Your task to perform on an android device: choose inbox layout in the gmail app Image 0: 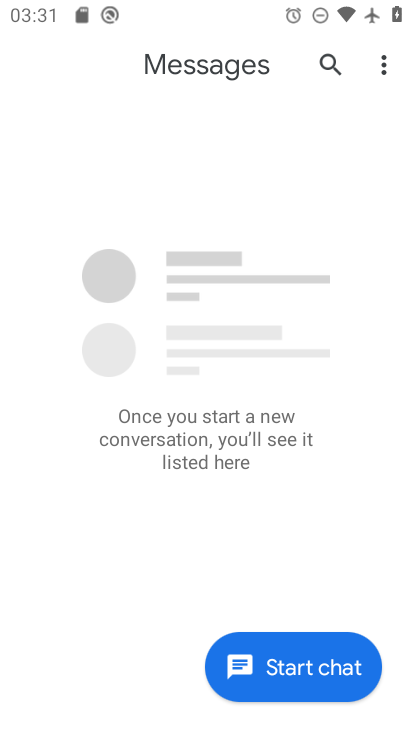
Step 0: press home button
Your task to perform on an android device: choose inbox layout in the gmail app Image 1: 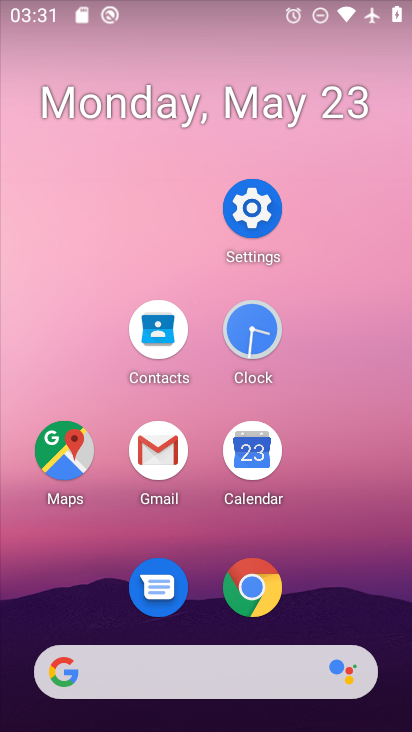
Step 1: click (169, 462)
Your task to perform on an android device: choose inbox layout in the gmail app Image 2: 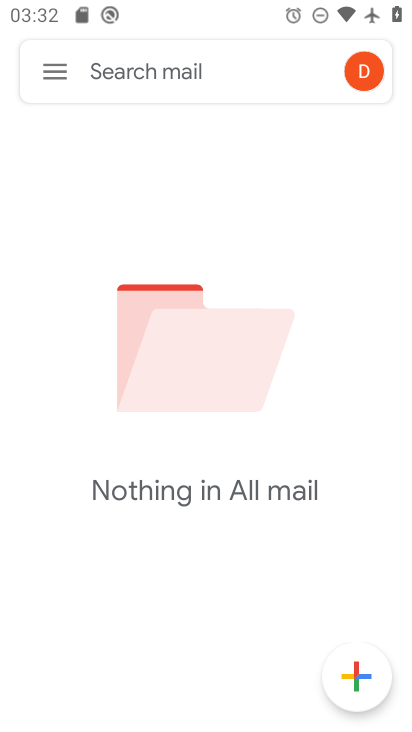
Step 2: click (44, 66)
Your task to perform on an android device: choose inbox layout in the gmail app Image 3: 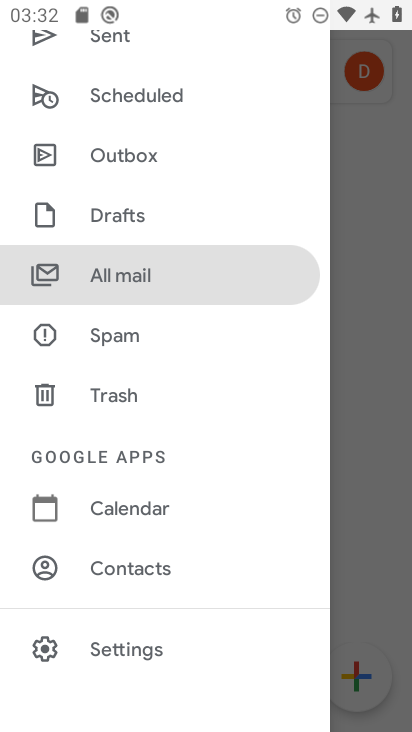
Step 3: drag from (139, 274) to (213, 701)
Your task to perform on an android device: choose inbox layout in the gmail app Image 4: 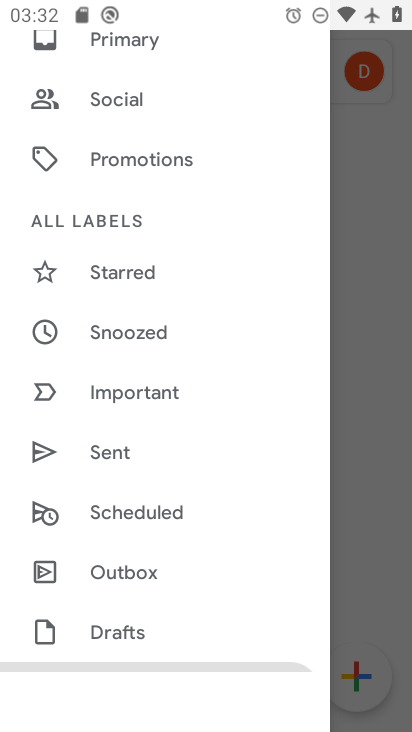
Step 4: click (181, 34)
Your task to perform on an android device: choose inbox layout in the gmail app Image 5: 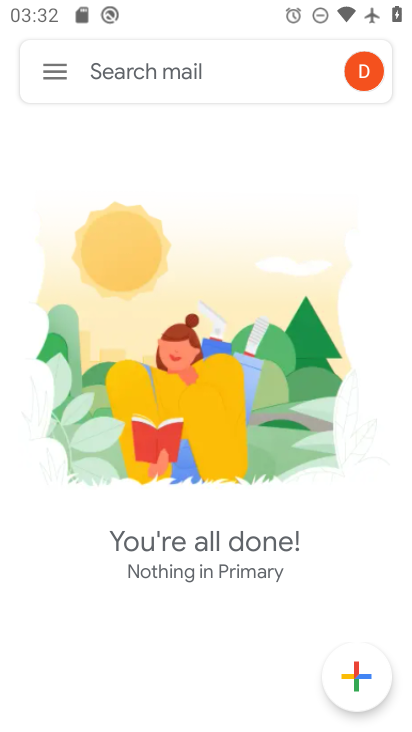
Step 5: task complete